Your task to perform on an android device: Go to wifi settings Image 0: 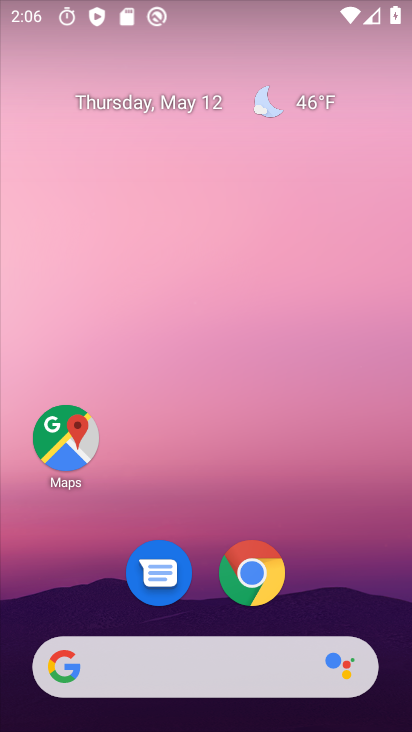
Step 0: drag from (202, 11) to (215, 539)
Your task to perform on an android device: Go to wifi settings Image 1: 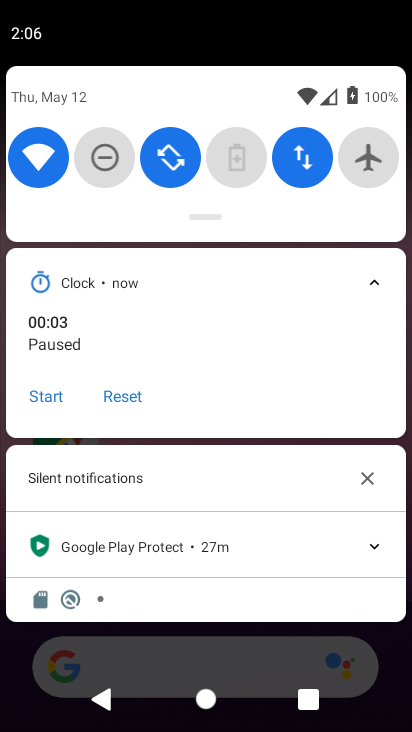
Step 1: click (57, 171)
Your task to perform on an android device: Go to wifi settings Image 2: 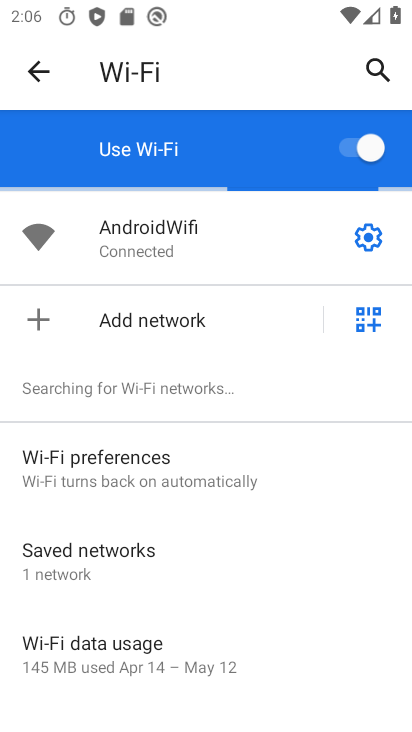
Step 2: task complete